Your task to perform on an android device: Open the stopwatch Image 0: 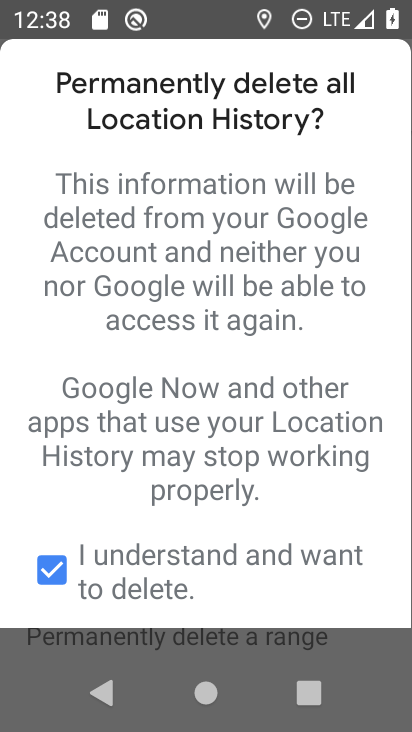
Step 0: press back button
Your task to perform on an android device: Open the stopwatch Image 1: 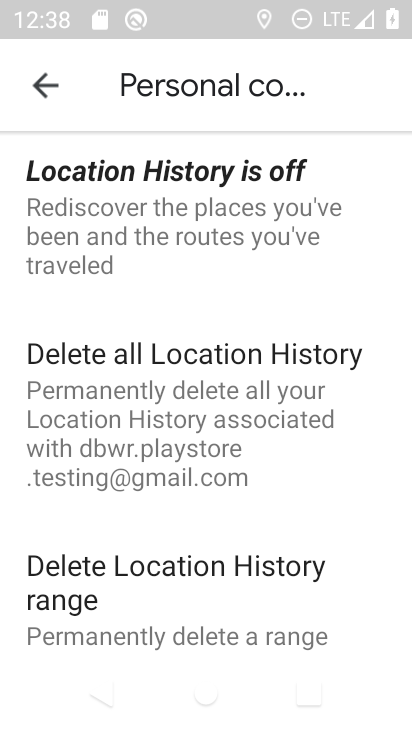
Step 1: press back button
Your task to perform on an android device: Open the stopwatch Image 2: 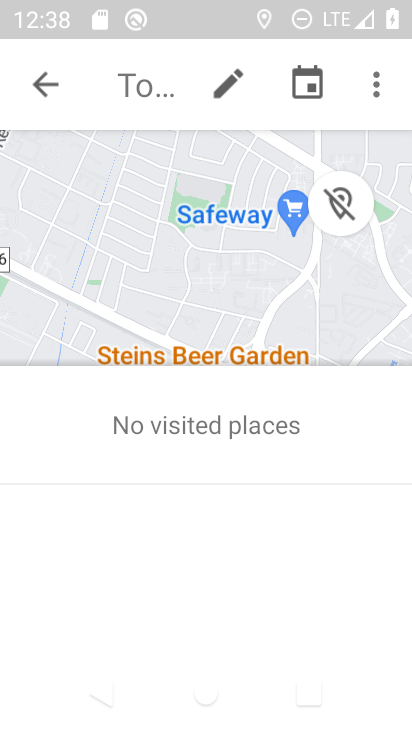
Step 2: press home button
Your task to perform on an android device: Open the stopwatch Image 3: 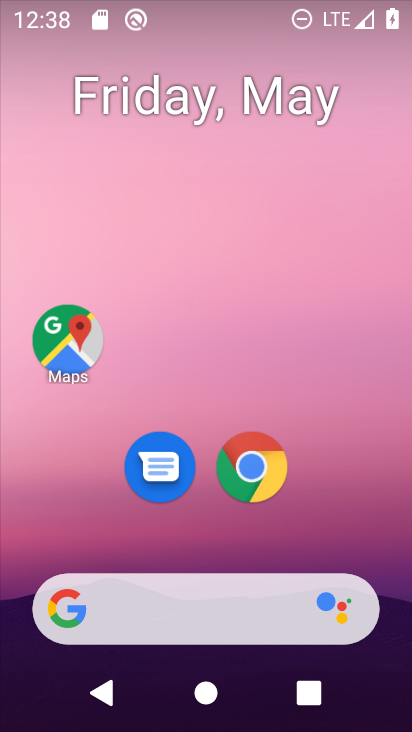
Step 3: drag from (345, 631) to (380, 18)
Your task to perform on an android device: Open the stopwatch Image 4: 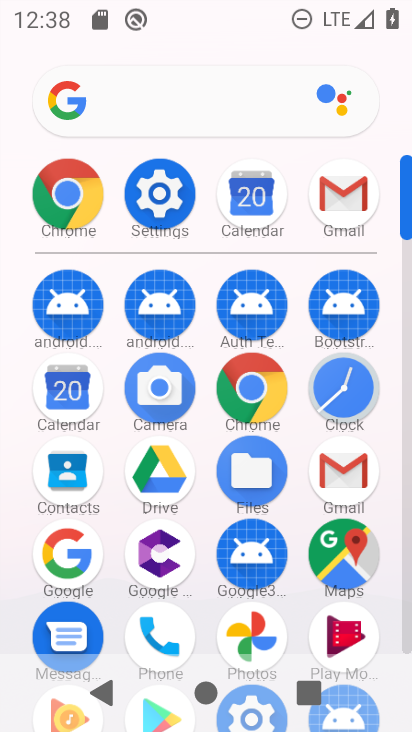
Step 4: click (339, 383)
Your task to perform on an android device: Open the stopwatch Image 5: 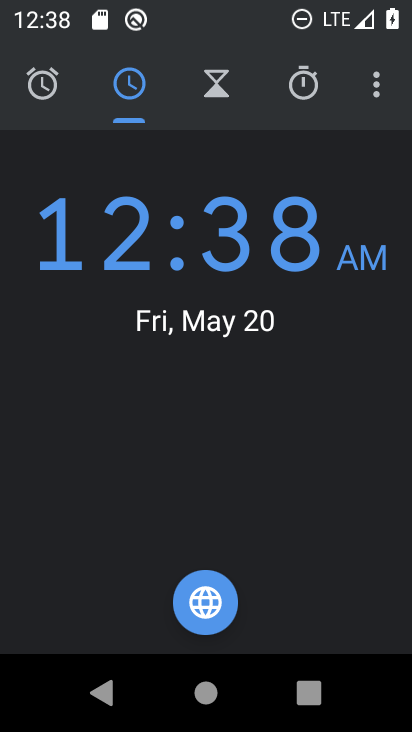
Step 5: click (320, 103)
Your task to perform on an android device: Open the stopwatch Image 6: 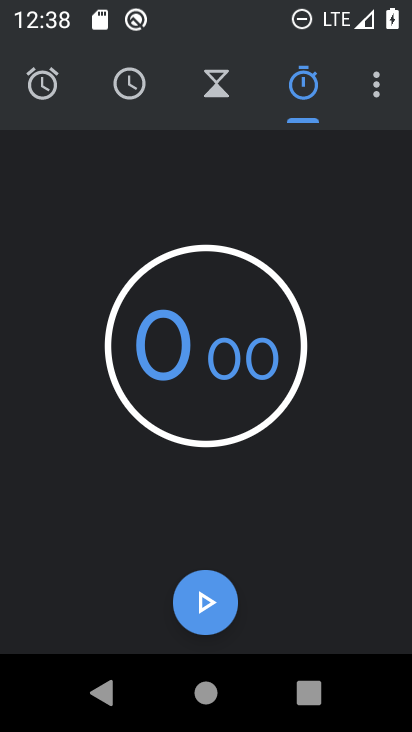
Step 6: task complete